Your task to perform on an android device: Open my contact list Image 0: 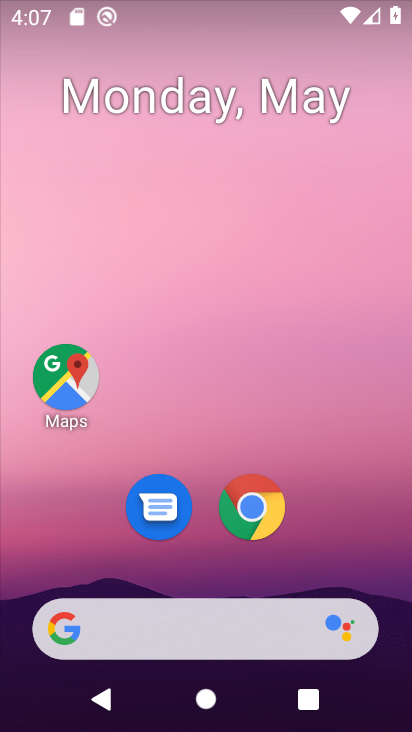
Step 0: drag from (390, 540) to (303, 6)
Your task to perform on an android device: Open my contact list Image 1: 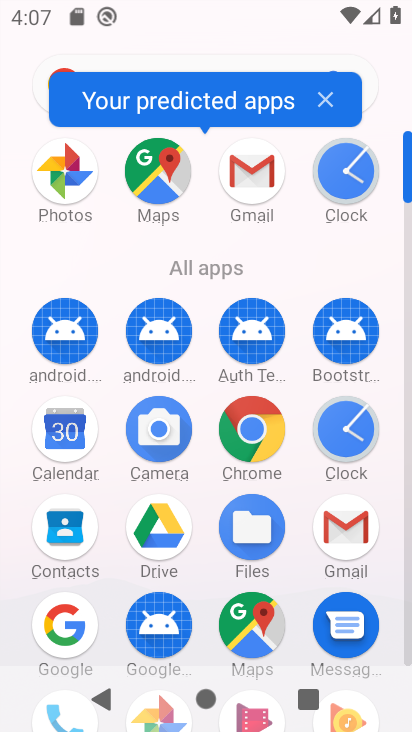
Step 1: click (399, 660)
Your task to perform on an android device: Open my contact list Image 2: 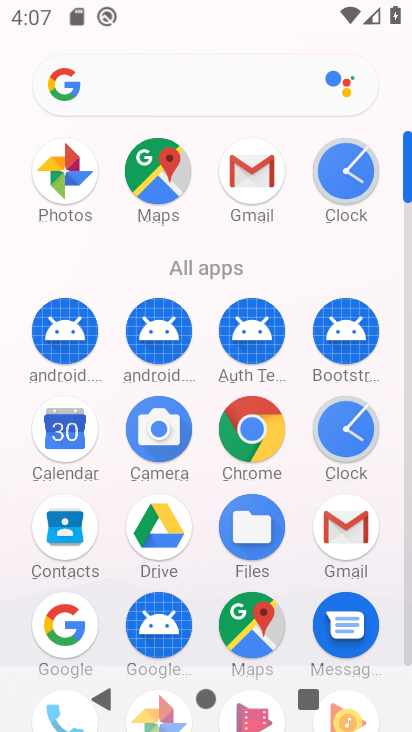
Step 2: click (406, 658)
Your task to perform on an android device: Open my contact list Image 3: 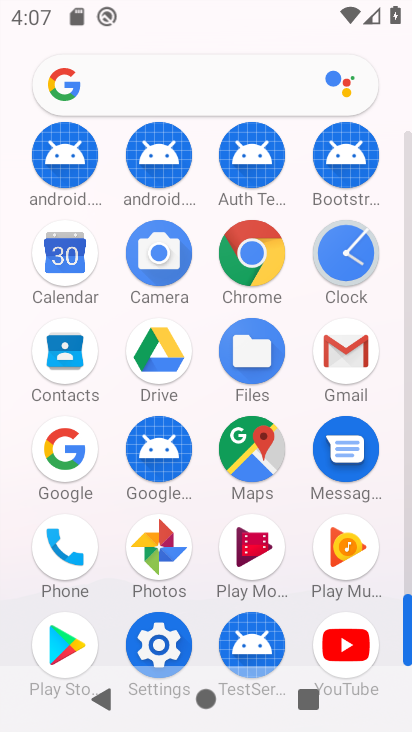
Step 3: click (53, 362)
Your task to perform on an android device: Open my contact list Image 4: 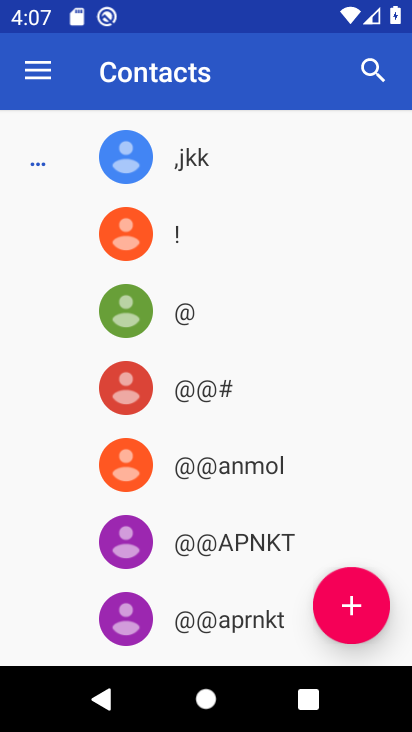
Step 4: task complete